Your task to perform on an android device: Open CNN.com Image 0: 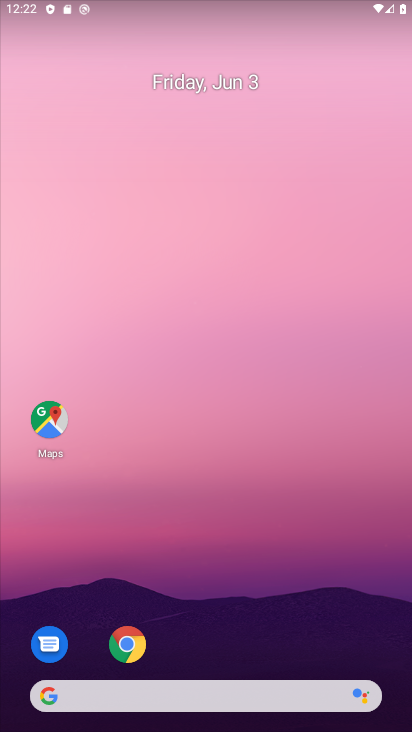
Step 0: click (135, 636)
Your task to perform on an android device: Open CNN.com Image 1: 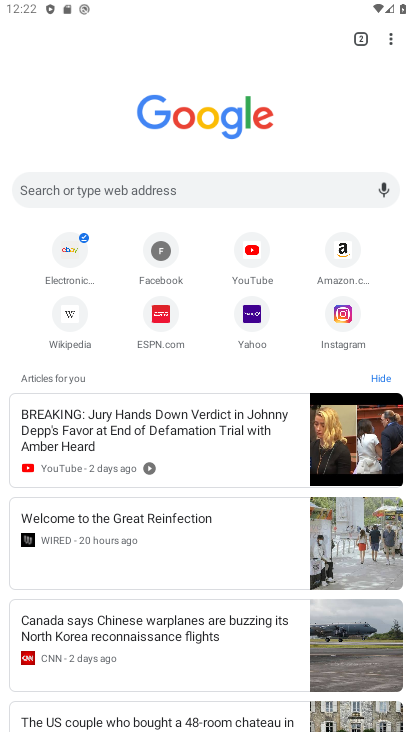
Step 1: click (216, 187)
Your task to perform on an android device: Open CNN.com Image 2: 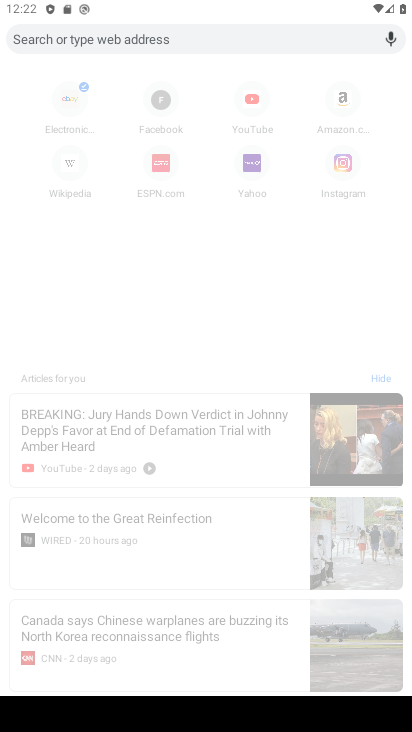
Step 2: type "CNN.com"
Your task to perform on an android device: Open CNN.com Image 3: 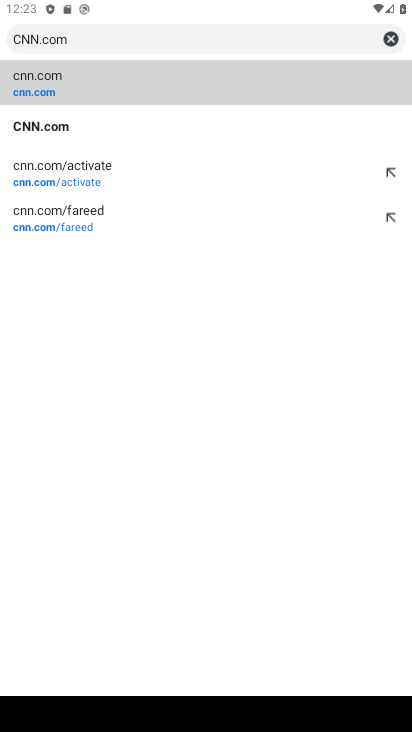
Step 3: click (93, 83)
Your task to perform on an android device: Open CNN.com Image 4: 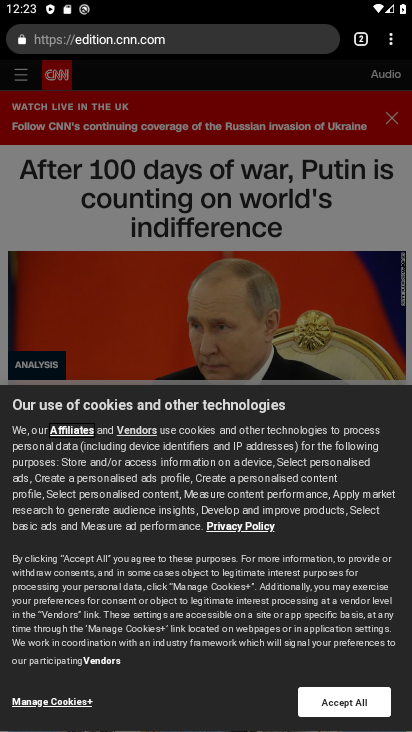
Step 4: task complete